Your task to perform on an android device: Clear the cart on walmart.com. Add "dell xps" to the cart on walmart.com Image 0: 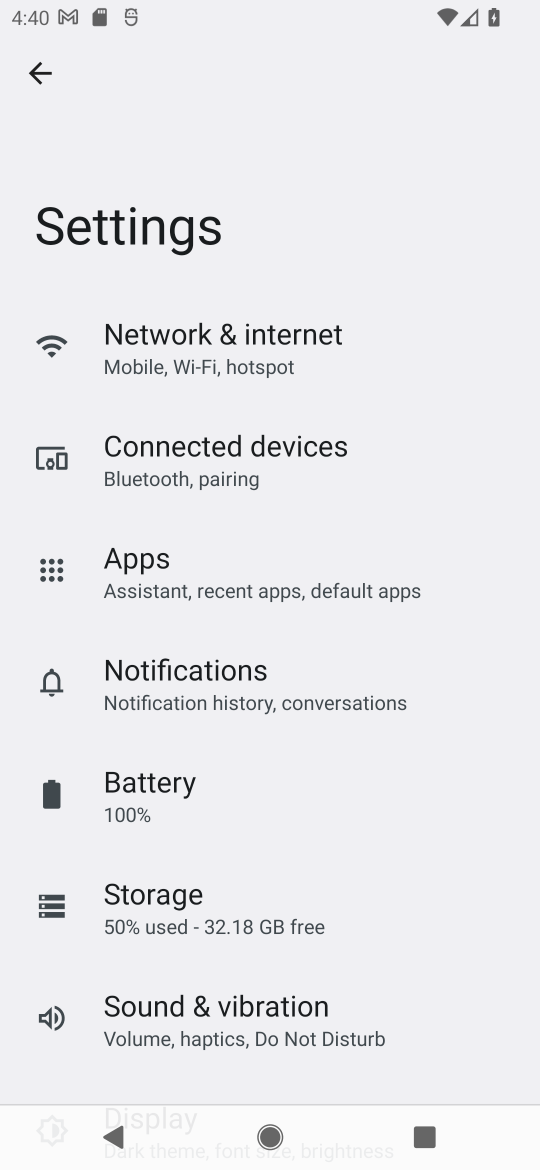
Step 0: press home button
Your task to perform on an android device: Clear the cart on walmart.com. Add "dell xps" to the cart on walmart.com Image 1: 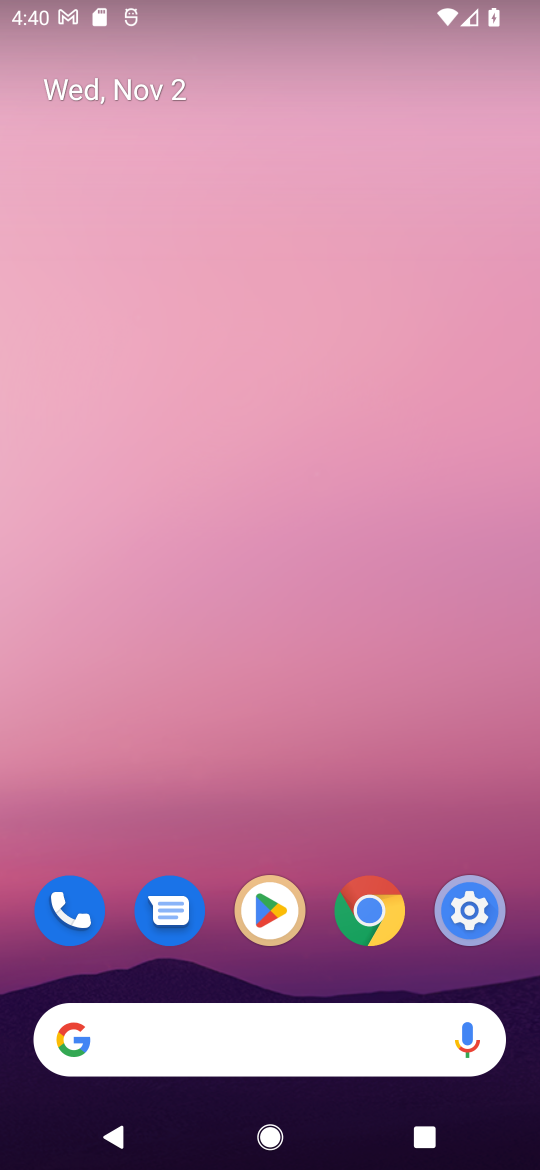
Step 1: click (234, 1049)
Your task to perform on an android device: Clear the cart on walmart.com. Add "dell xps" to the cart on walmart.com Image 2: 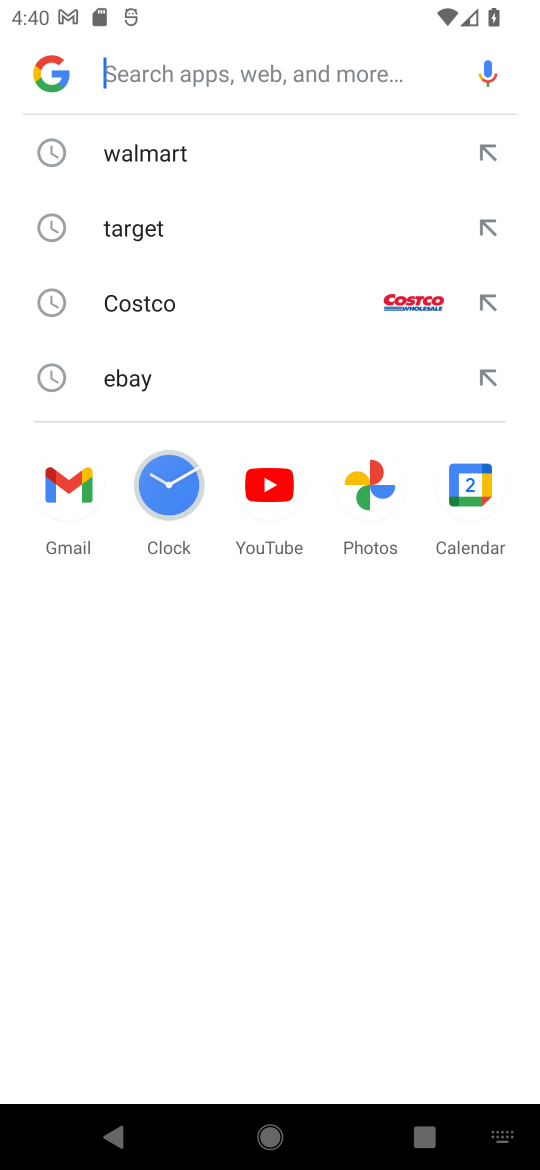
Step 2: type "walmart.com"
Your task to perform on an android device: Clear the cart on walmart.com. Add "dell xps" to the cart on walmart.com Image 3: 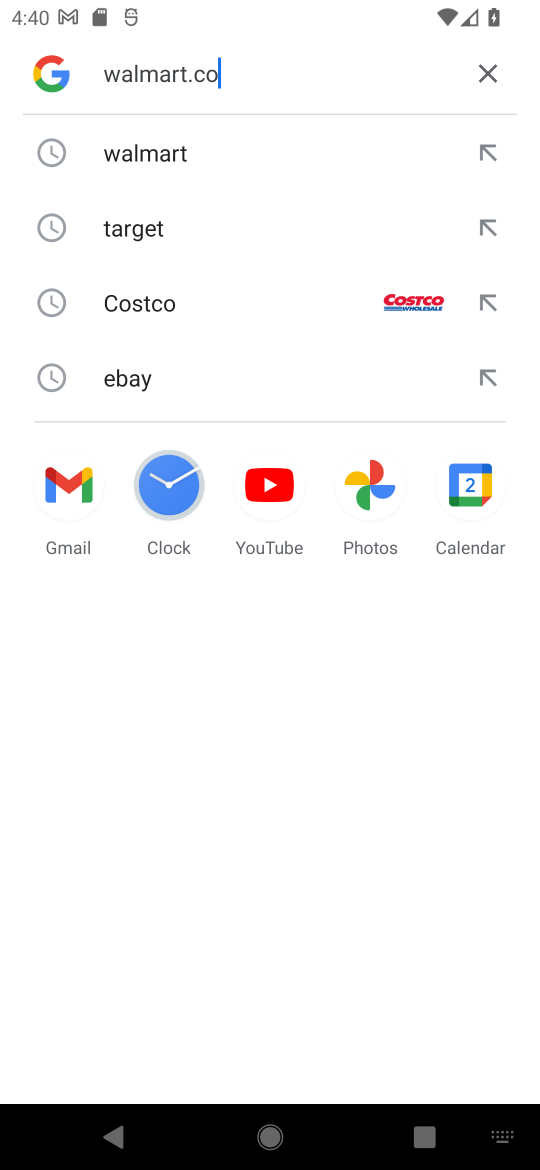
Step 3: type ""
Your task to perform on an android device: Clear the cart on walmart.com. Add "dell xps" to the cart on walmart.com Image 4: 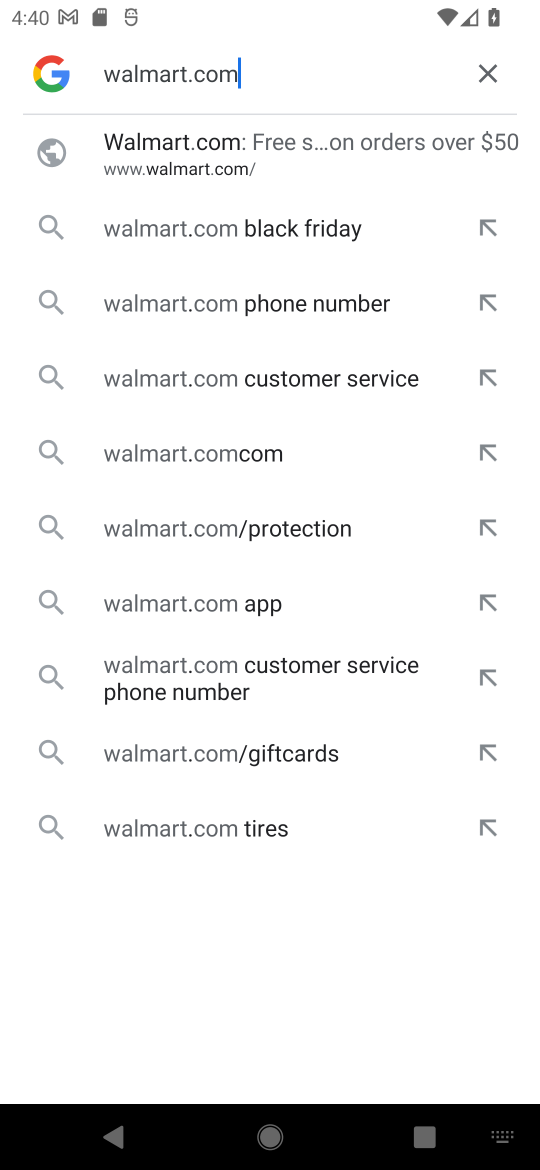
Step 4: press home button
Your task to perform on an android device: Clear the cart on walmart.com. Add "dell xps" to the cart on walmart.com Image 5: 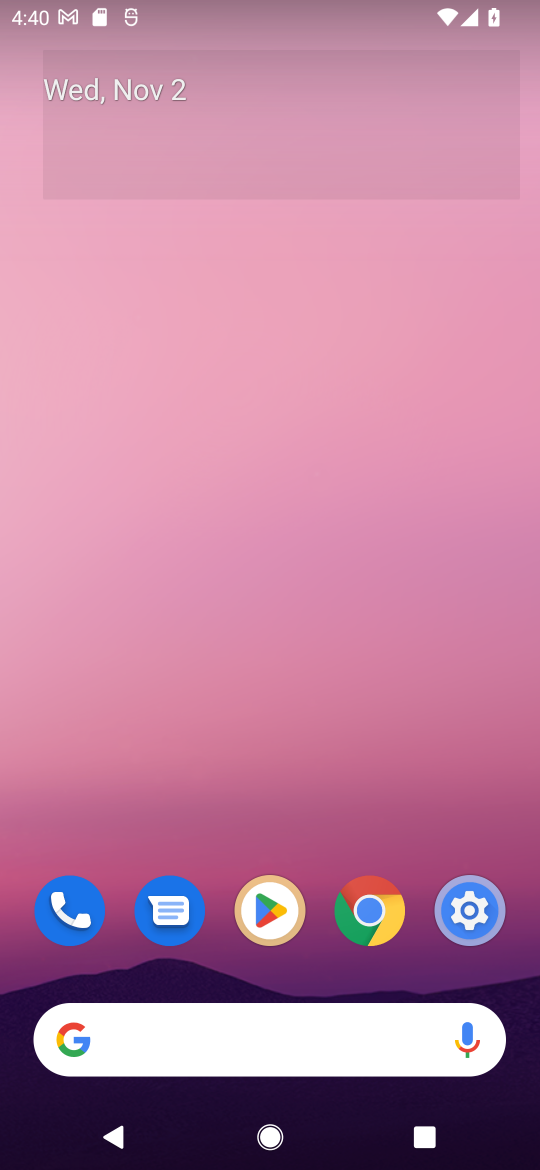
Step 5: click (393, 1050)
Your task to perform on an android device: Clear the cart on walmart.com. Add "dell xps" to the cart on walmart.com Image 6: 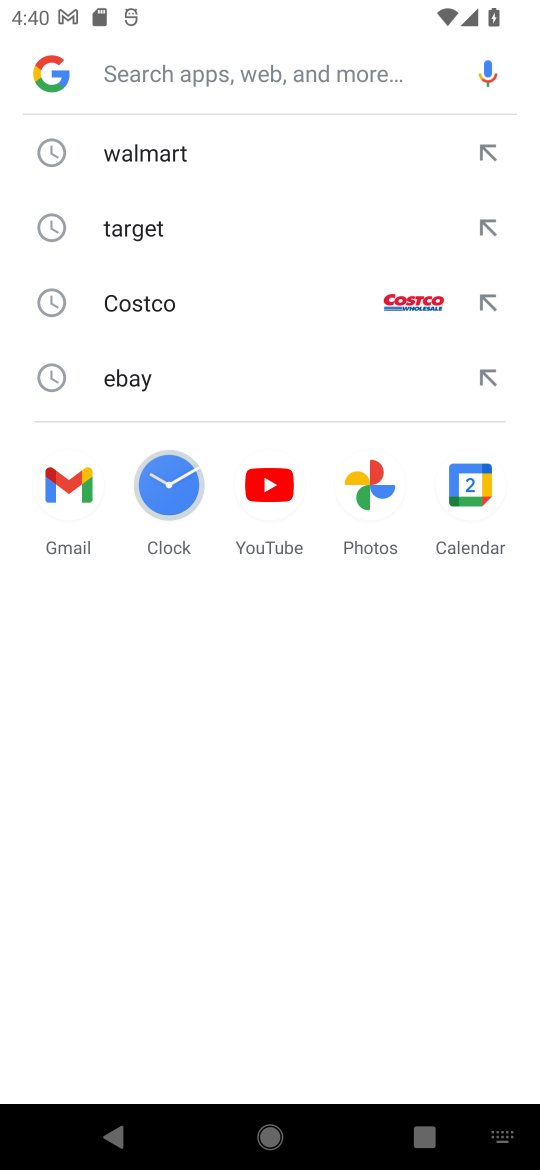
Step 6: click (157, 166)
Your task to perform on an android device: Clear the cart on walmart.com. Add "dell xps" to the cart on walmart.com Image 7: 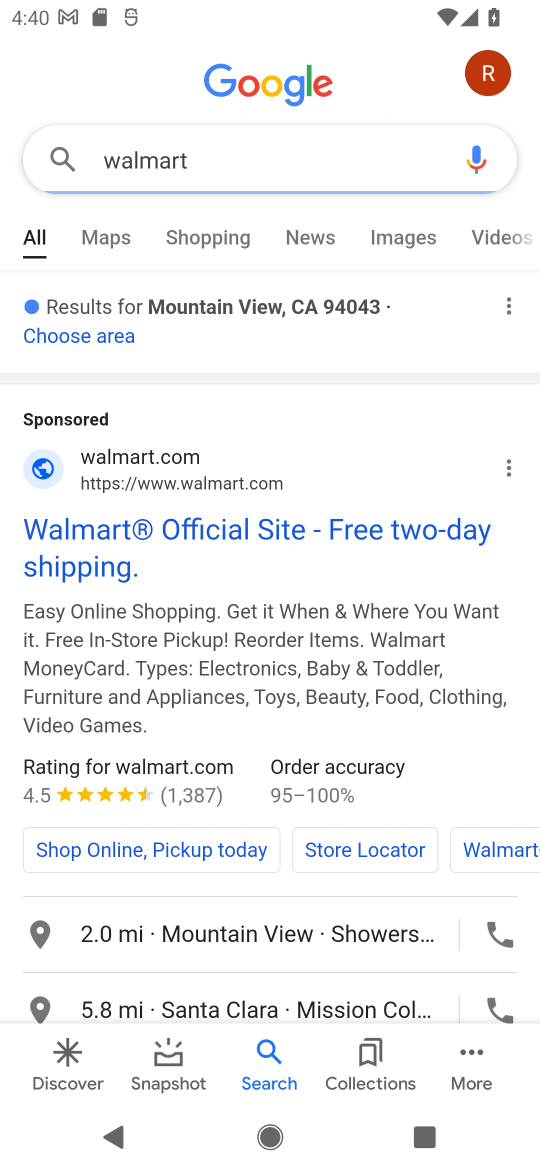
Step 7: click (183, 561)
Your task to perform on an android device: Clear the cart on walmart.com. Add "dell xps" to the cart on walmart.com Image 8: 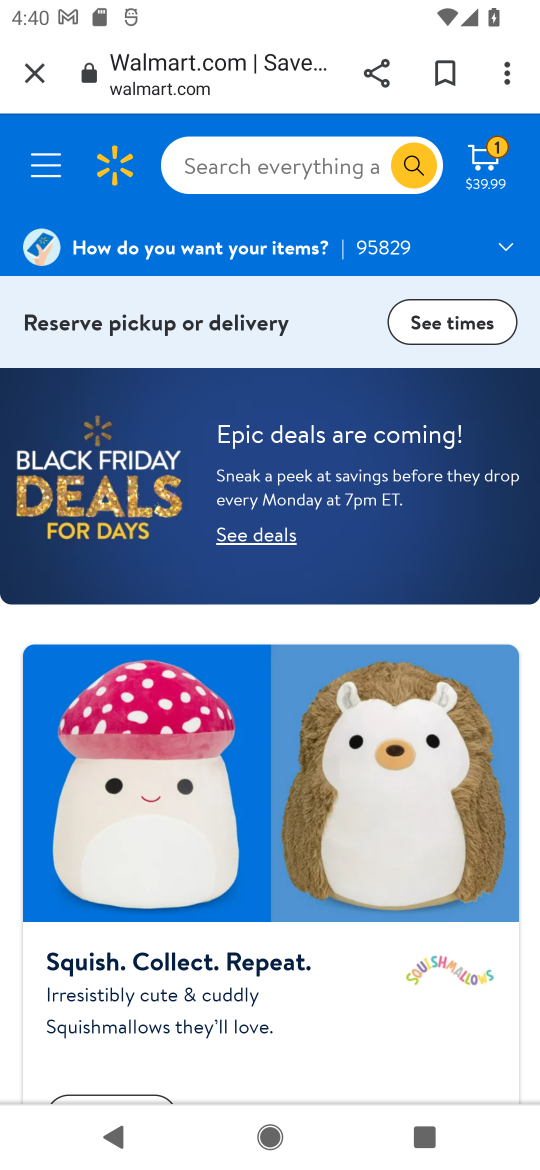
Step 8: click (234, 172)
Your task to perform on an android device: Clear the cart on walmart.com. Add "dell xps" to the cart on walmart.com Image 9: 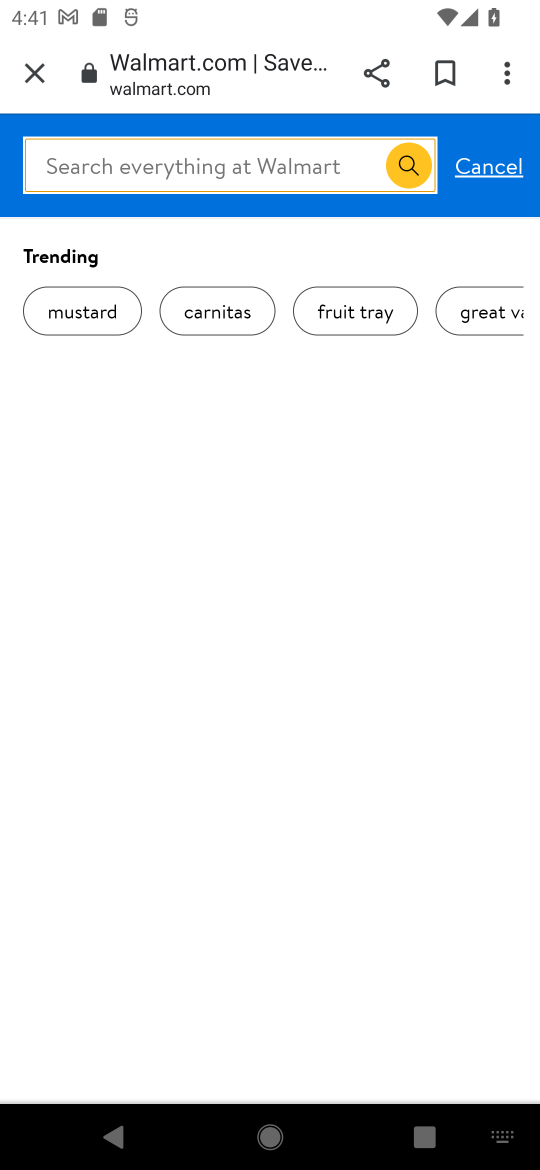
Step 9: type "dell xps"
Your task to perform on an android device: Clear the cart on walmart.com. Add "dell xps" to the cart on walmart.com Image 10: 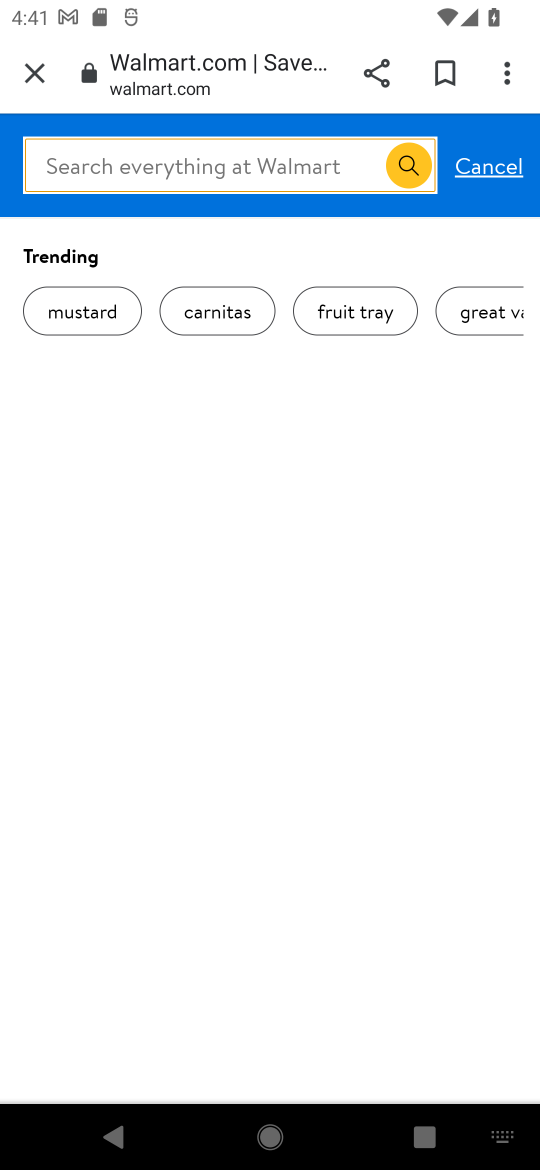
Step 10: type ""
Your task to perform on an android device: Clear the cart on walmart.com. Add "dell xps" to the cart on walmart.com Image 11: 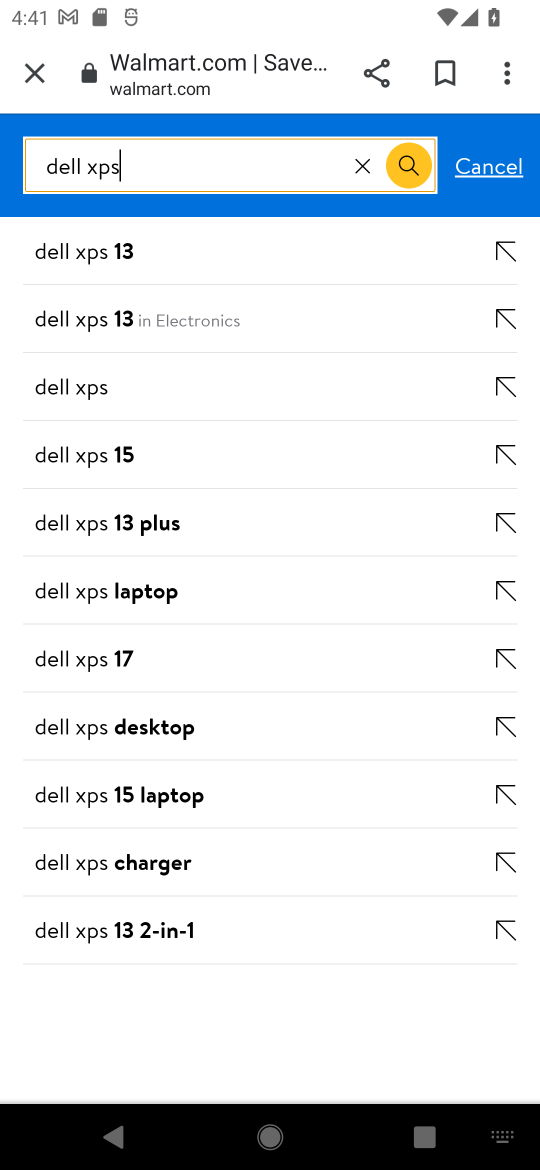
Step 11: press enter
Your task to perform on an android device: Clear the cart on walmart.com. Add "dell xps" to the cart on walmart.com Image 12: 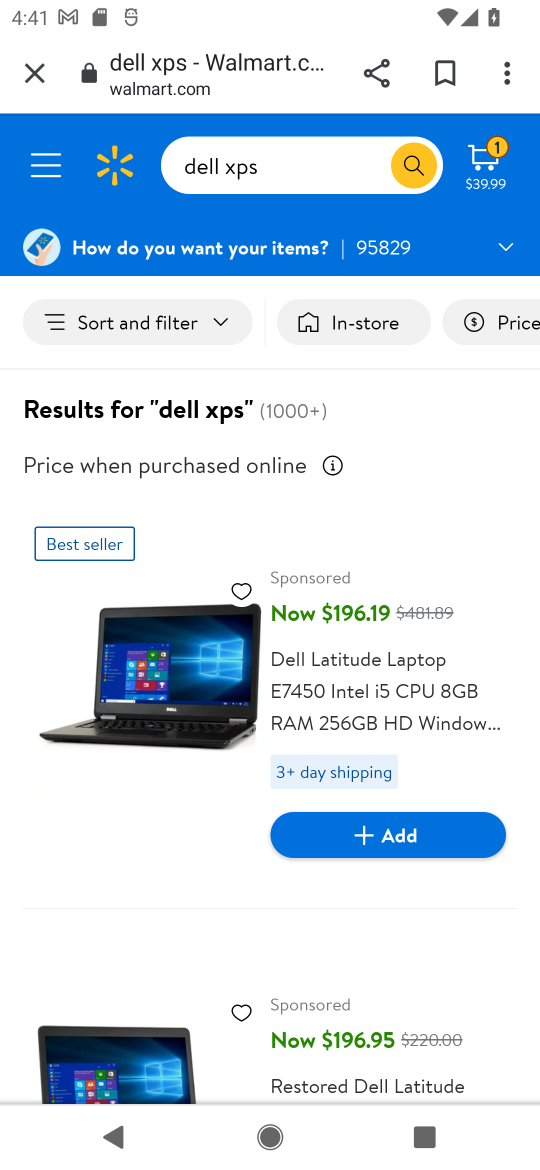
Step 12: click (415, 843)
Your task to perform on an android device: Clear the cart on walmart.com. Add "dell xps" to the cart on walmart.com Image 13: 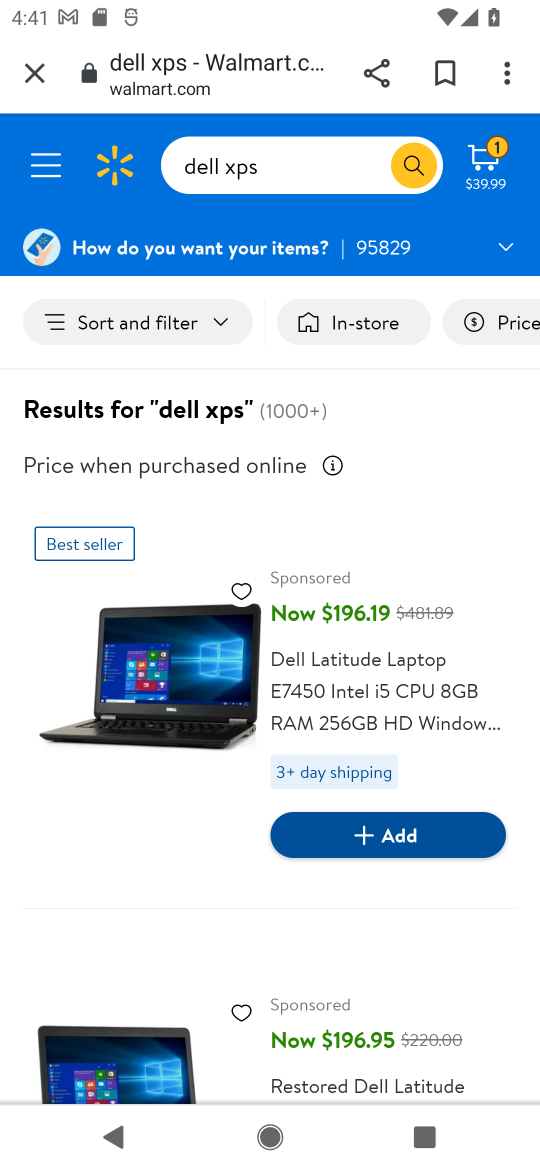
Step 13: click (371, 843)
Your task to perform on an android device: Clear the cart on walmart.com. Add "dell xps" to the cart on walmart.com Image 14: 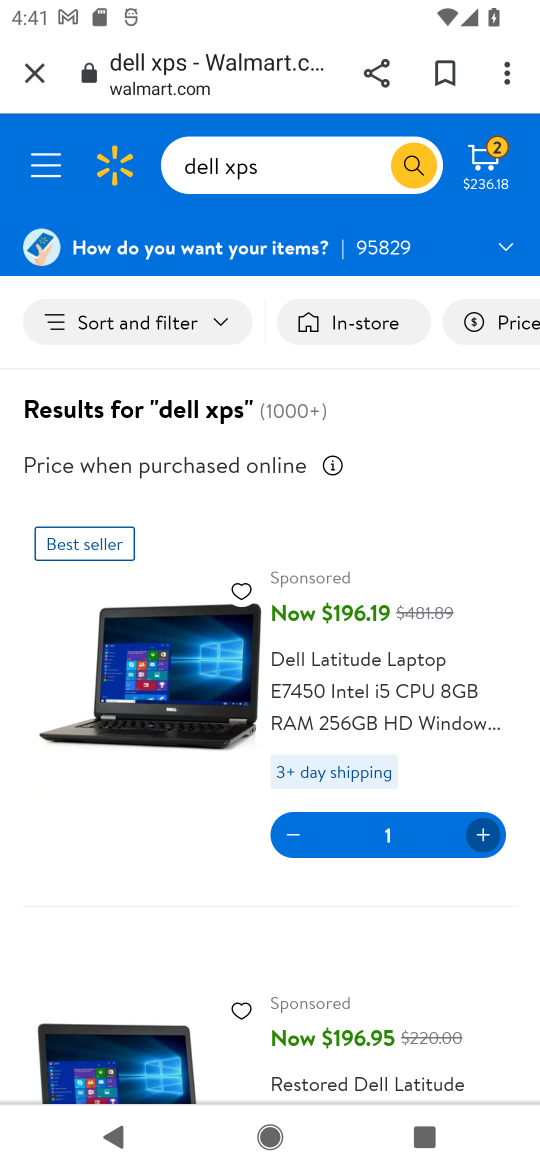
Step 14: task complete